Your task to perform on an android device: What is the recent news? Image 0: 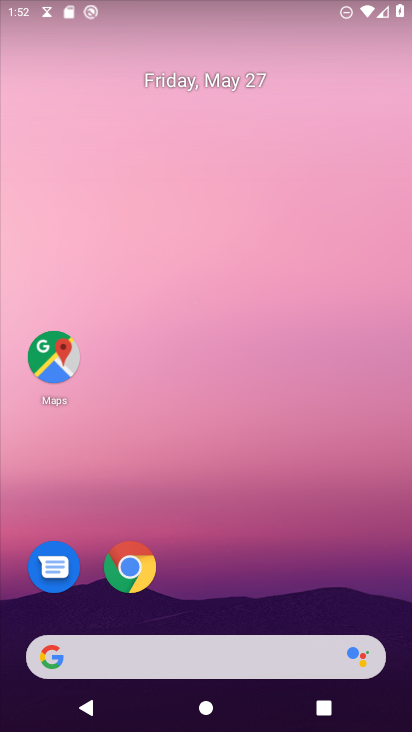
Step 0: click (239, 663)
Your task to perform on an android device: What is the recent news? Image 1: 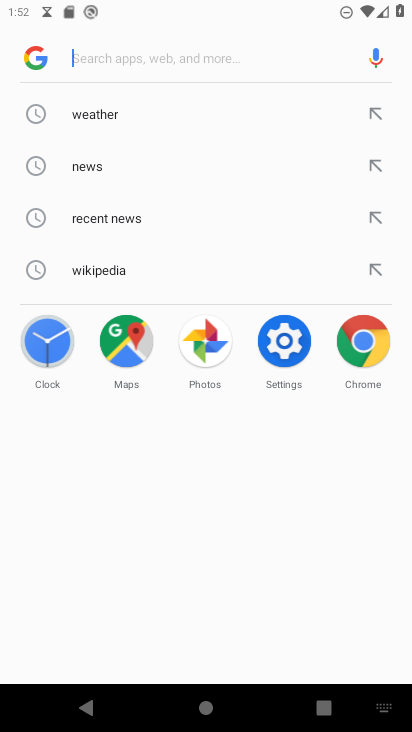
Step 1: click (142, 230)
Your task to perform on an android device: What is the recent news? Image 2: 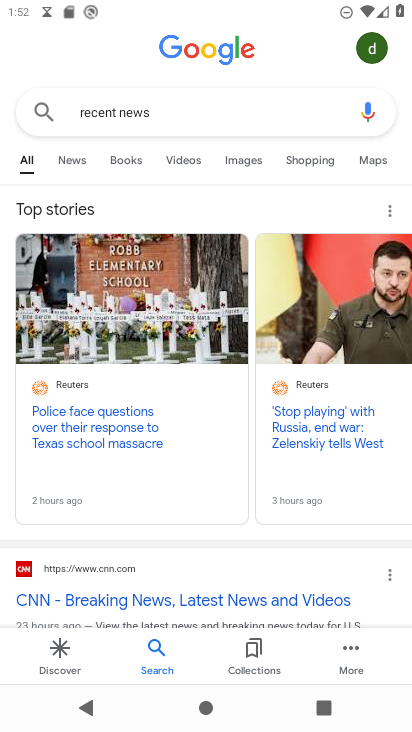
Step 2: task complete